Your task to perform on an android device: See recent photos Image 0: 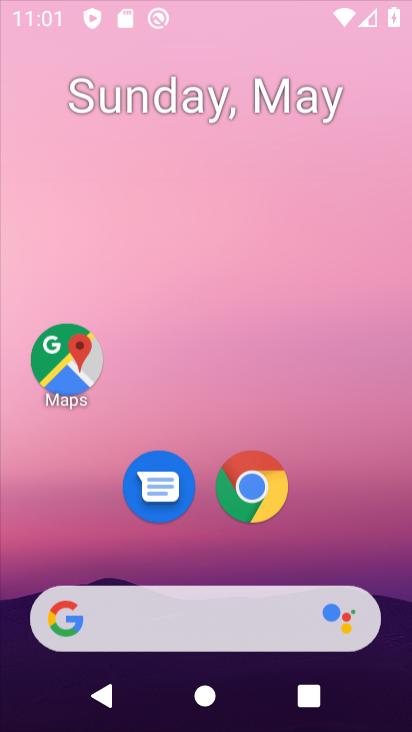
Step 0: click (332, 29)
Your task to perform on an android device: See recent photos Image 1: 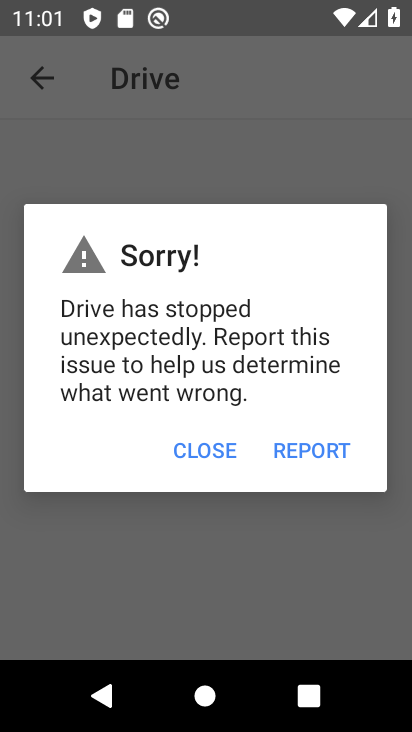
Step 1: press home button
Your task to perform on an android device: See recent photos Image 2: 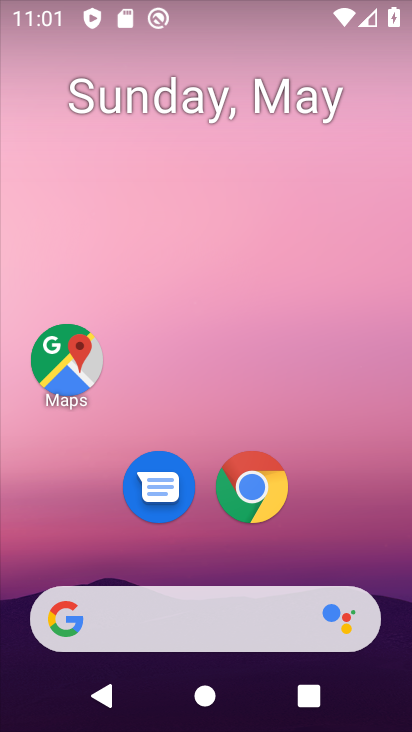
Step 2: drag from (324, 564) to (326, 51)
Your task to perform on an android device: See recent photos Image 3: 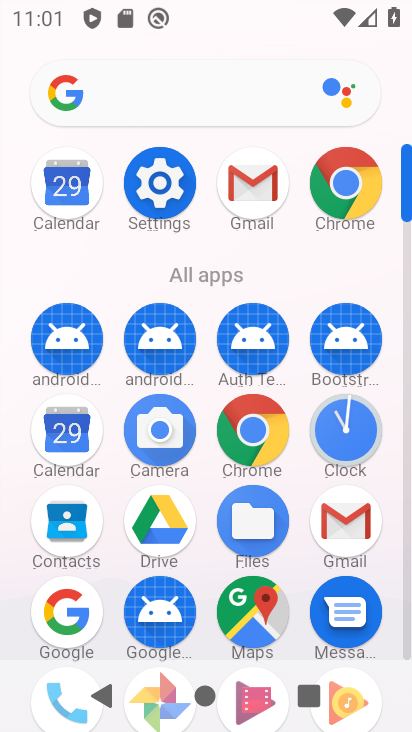
Step 3: drag from (197, 566) to (218, 128)
Your task to perform on an android device: See recent photos Image 4: 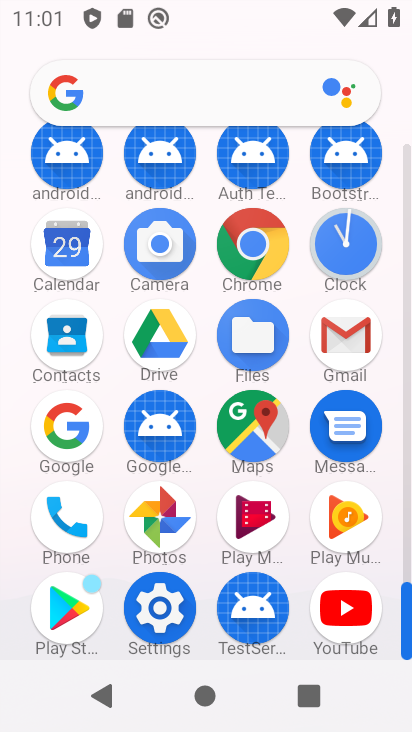
Step 4: click (156, 519)
Your task to perform on an android device: See recent photos Image 5: 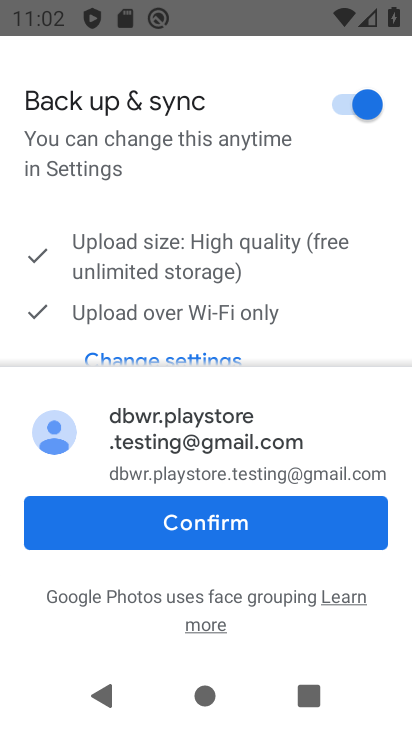
Step 5: task complete